Your task to perform on an android device: Open notification settings Image 0: 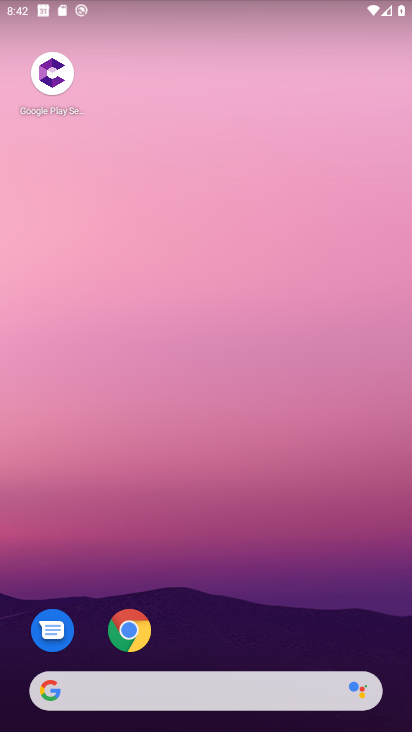
Step 0: drag from (218, 659) to (300, 103)
Your task to perform on an android device: Open notification settings Image 1: 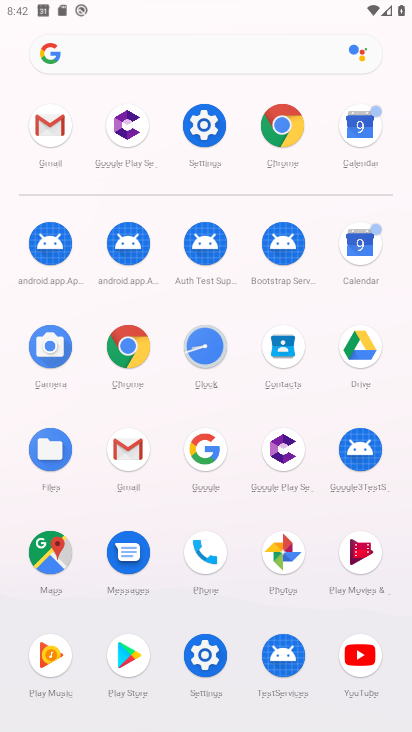
Step 1: click (195, 153)
Your task to perform on an android device: Open notification settings Image 2: 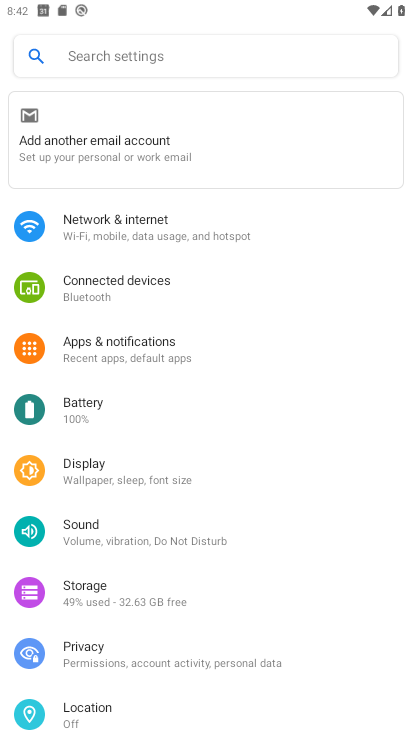
Step 2: click (131, 362)
Your task to perform on an android device: Open notification settings Image 3: 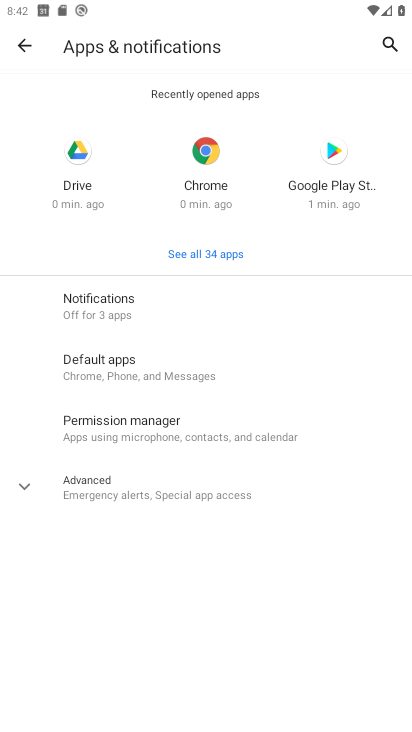
Step 3: click (101, 323)
Your task to perform on an android device: Open notification settings Image 4: 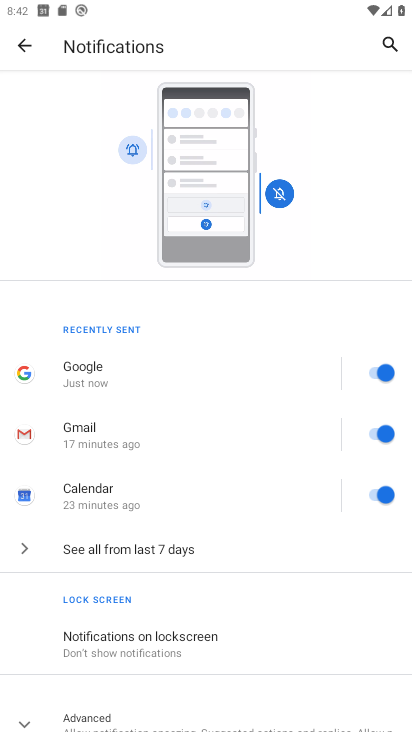
Step 4: click (361, 371)
Your task to perform on an android device: Open notification settings Image 5: 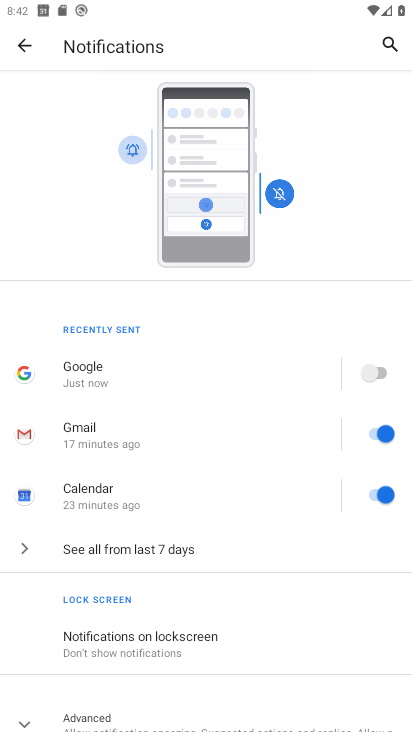
Step 5: click (364, 431)
Your task to perform on an android device: Open notification settings Image 6: 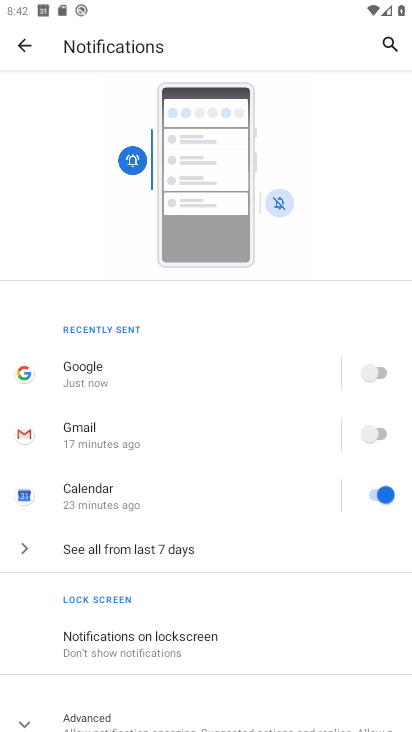
Step 6: click (364, 502)
Your task to perform on an android device: Open notification settings Image 7: 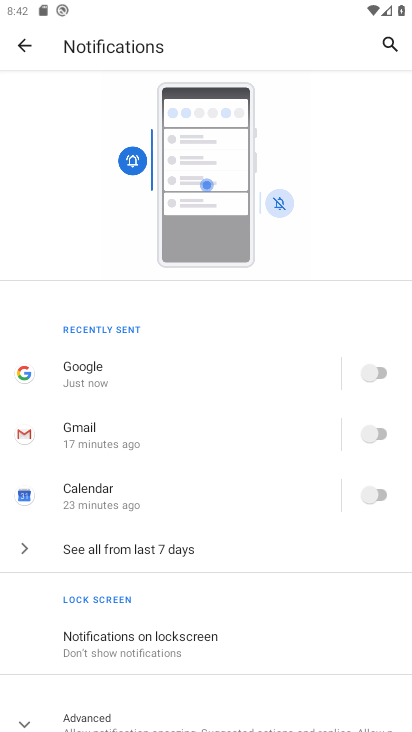
Step 7: click (185, 640)
Your task to perform on an android device: Open notification settings Image 8: 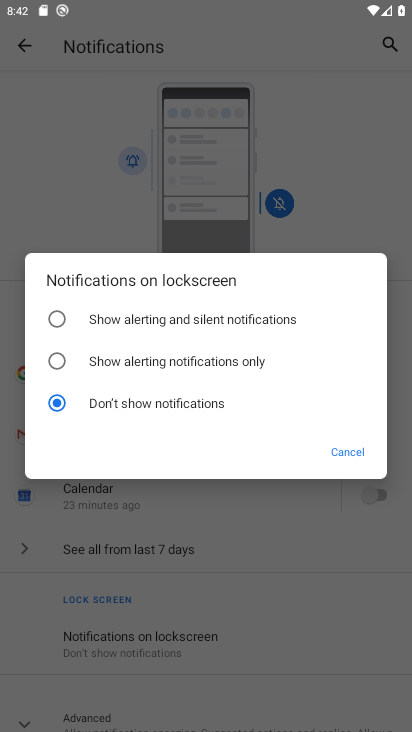
Step 8: click (127, 324)
Your task to perform on an android device: Open notification settings Image 9: 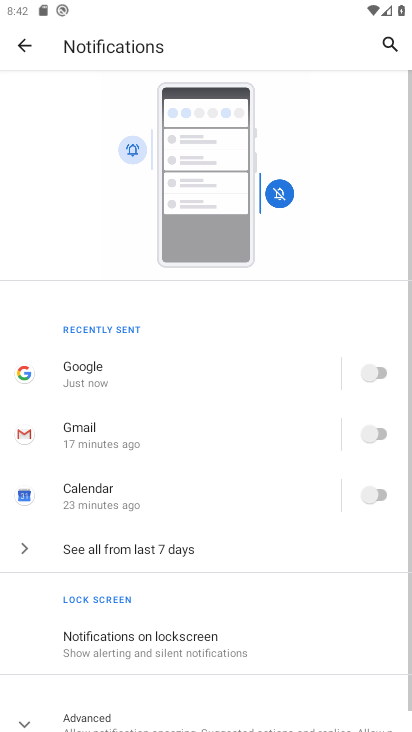
Step 9: task complete